Your task to perform on an android device: open chrome privacy settings Image 0: 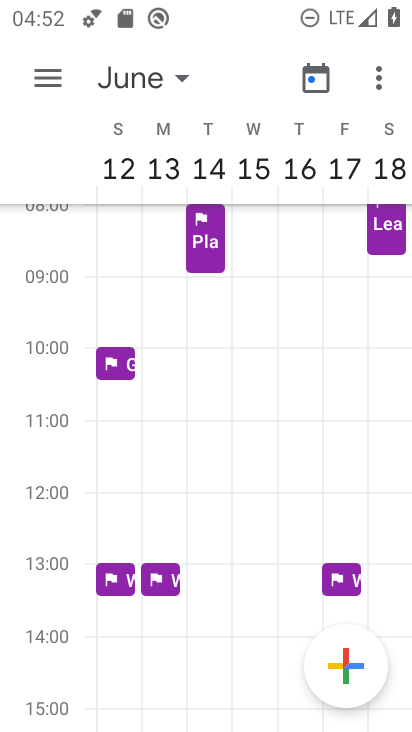
Step 0: press home button
Your task to perform on an android device: open chrome privacy settings Image 1: 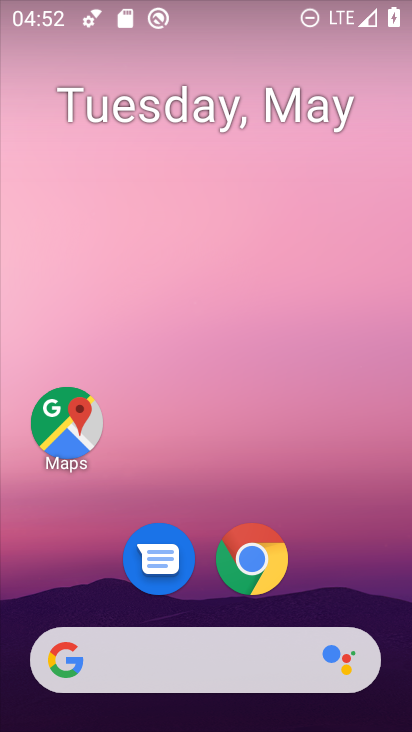
Step 1: click (249, 554)
Your task to perform on an android device: open chrome privacy settings Image 2: 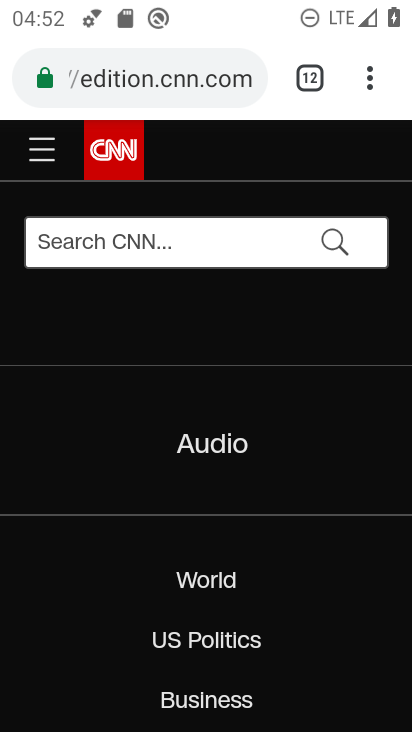
Step 2: click (371, 86)
Your task to perform on an android device: open chrome privacy settings Image 3: 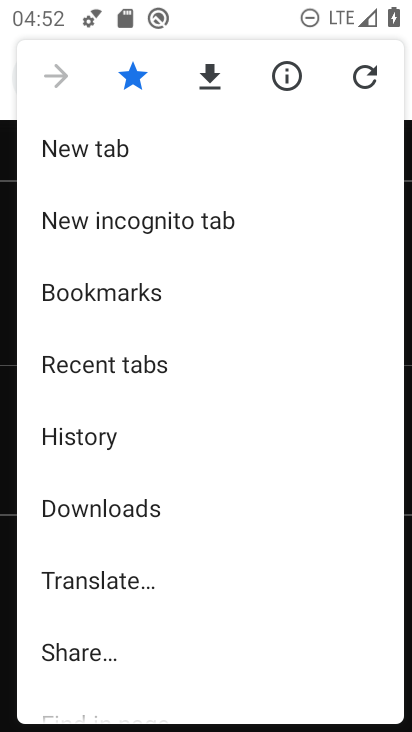
Step 3: drag from (127, 664) to (119, 295)
Your task to perform on an android device: open chrome privacy settings Image 4: 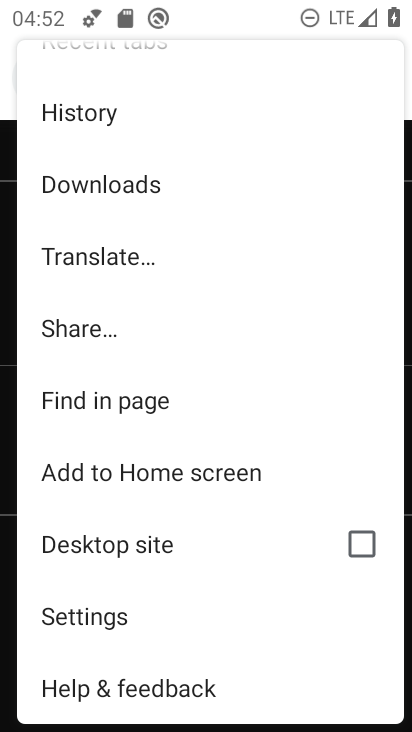
Step 4: click (86, 612)
Your task to perform on an android device: open chrome privacy settings Image 5: 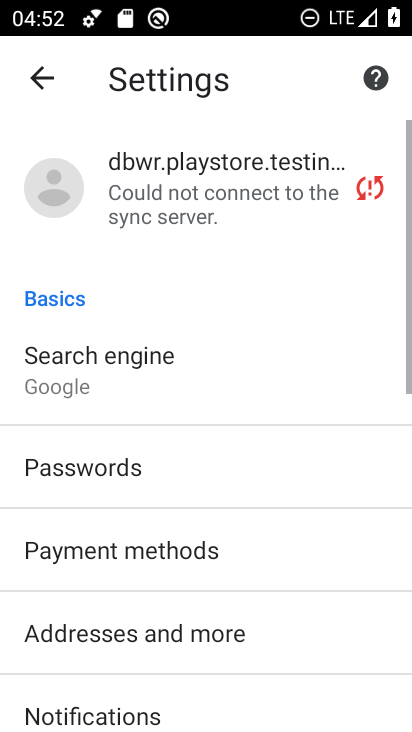
Step 5: drag from (131, 684) to (148, 295)
Your task to perform on an android device: open chrome privacy settings Image 6: 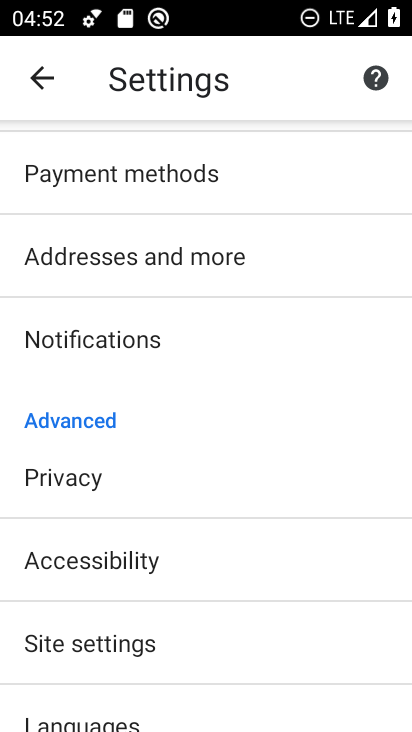
Step 6: click (87, 476)
Your task to perform on an android device: open chrome privacy settings Image 7: 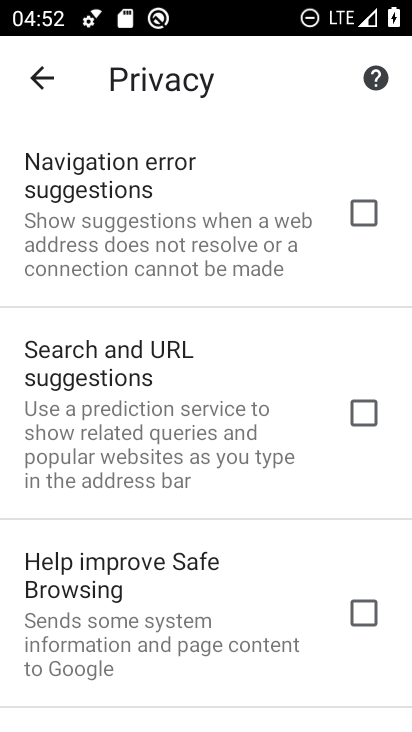
Step 7: task complete